Your task to perform on an android device: What's on my calendar today? Image 0: 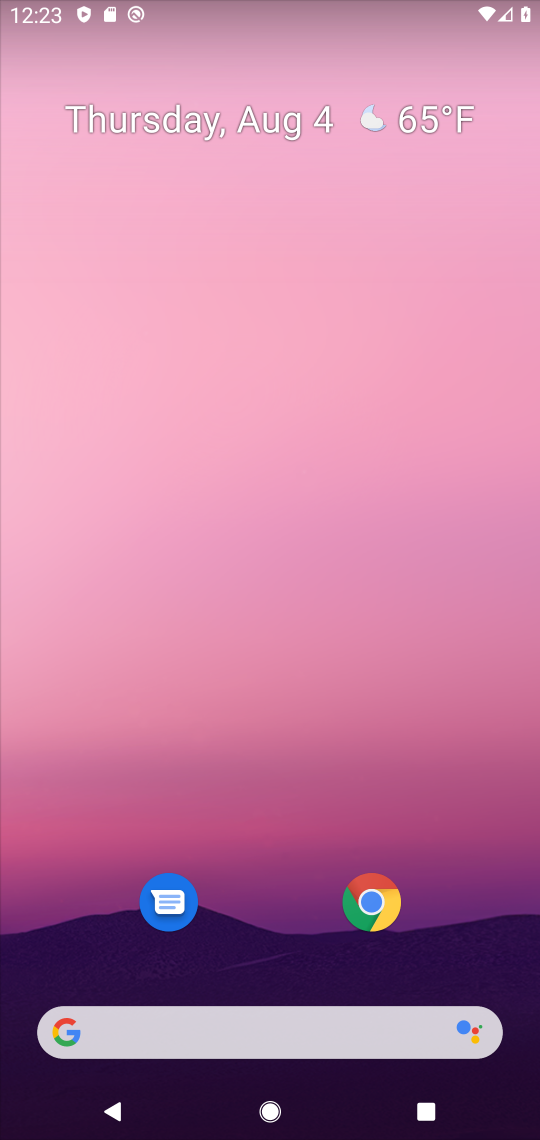
Step 0: drag from (490, 955) to (420, 109)
Your task to perform on an android device: What's on my calendar today? Image 1: 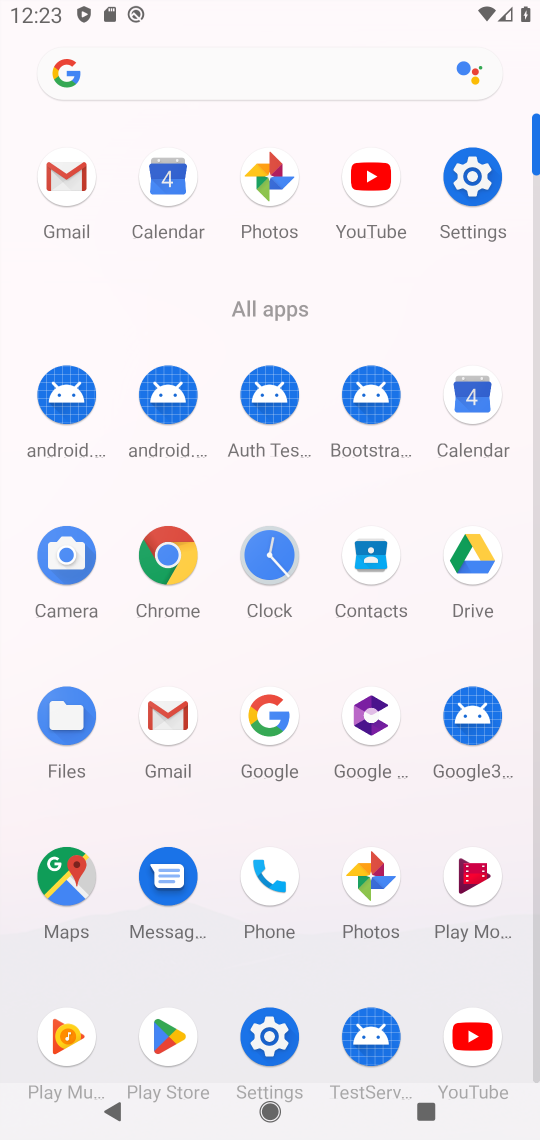
Step 1: click (475, 396)
Your task to perform on an android device: What's on my calendar today? Image 2: 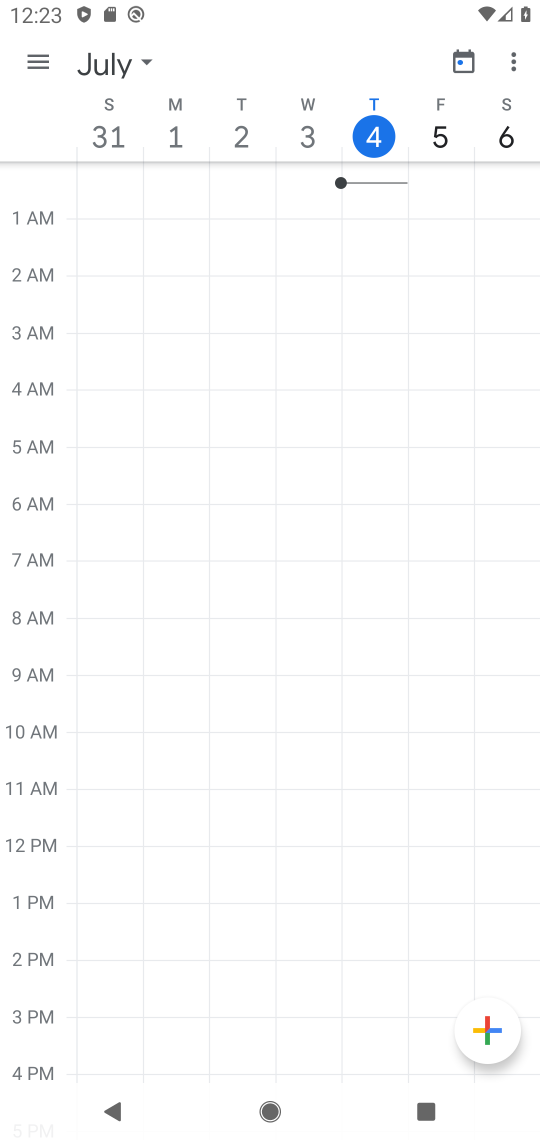
Step 2: click (41, 53)
Your task to perform on an android device: What's on my calendar today? Image 3: 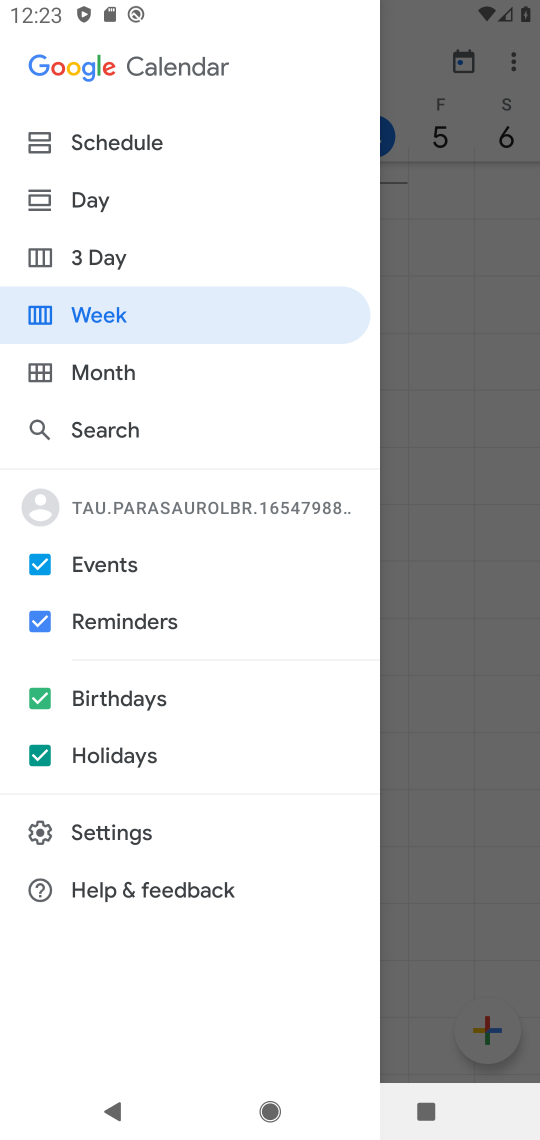
Step 3: click (104, 193)
Your task to perform on an android device: What's on my calendar today? Image 4: 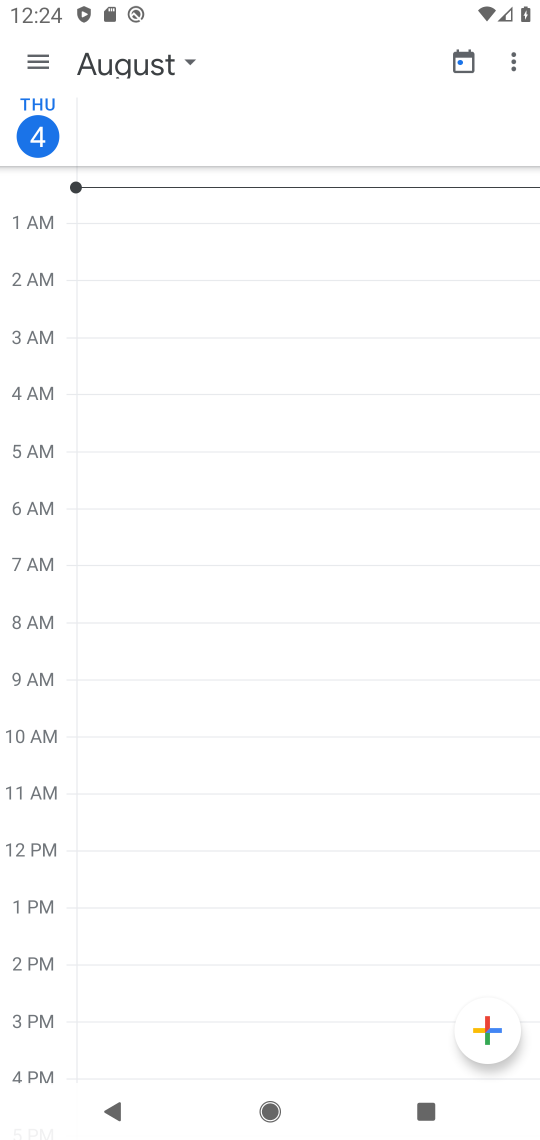
Step 4: task complete